Your task to perform on an android device: Go to notification settings Image 0: 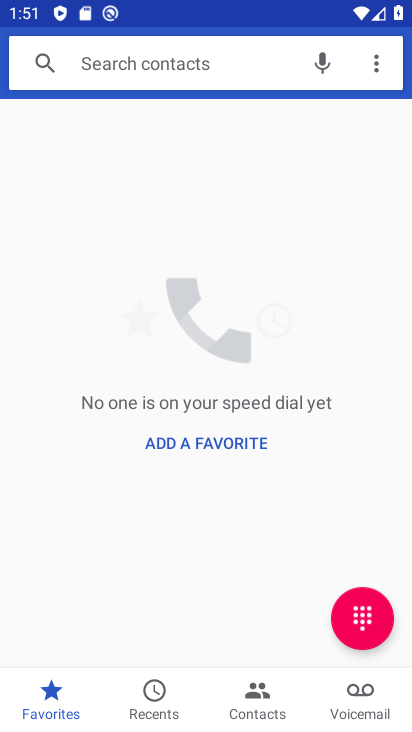
Step 0: press home button
Your task to perform on an android device: Go to notification settings Image 1: 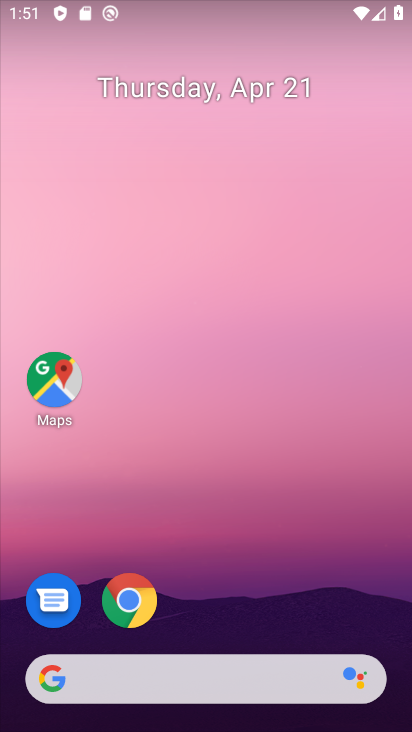
Step 1: drag from (285, 581) to (288, 100)
Your task to perform on an android device: Go to notification settings Image 2: 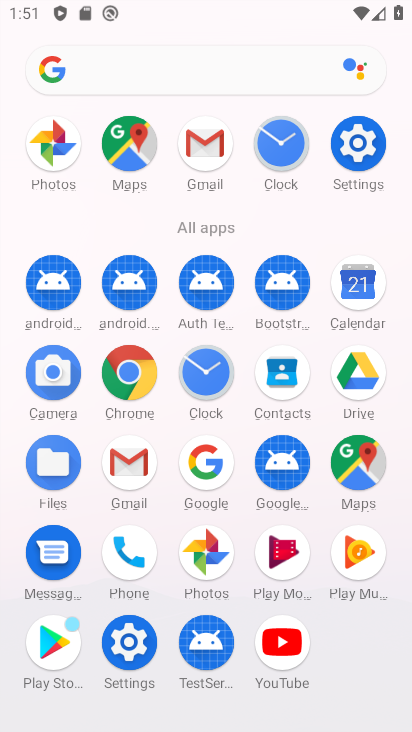
Step 2: click (369, 132)
Your task to perform on an android device: Go to notification settings Image 3: 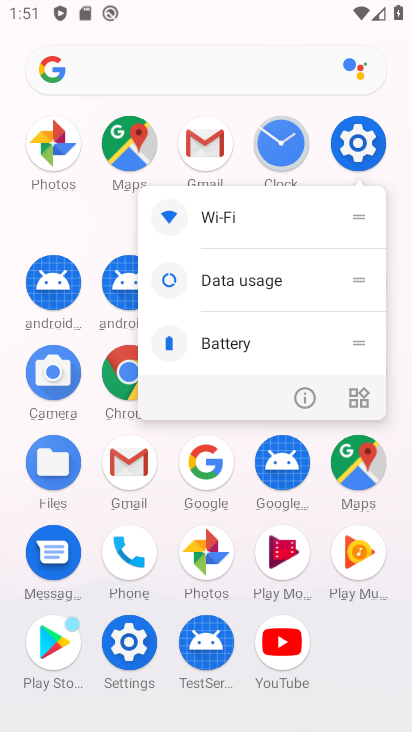
Step 3: click (132, 633)
Your task to perform on an android device: Go to notification settings Image 4: 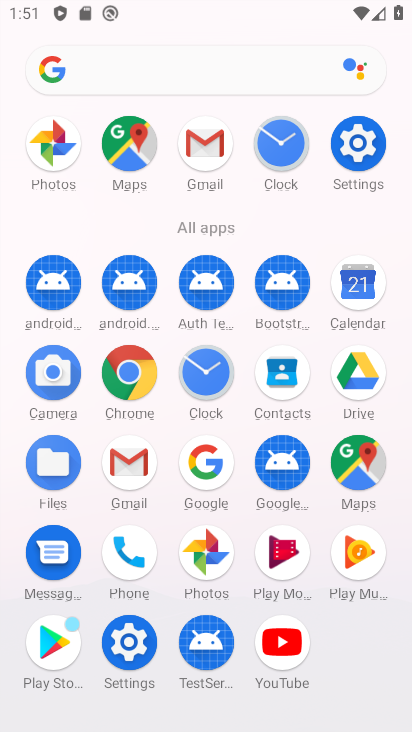
Step 4: click (132, 633)
Your task to perform on an android device: Go to notification settings Image 5: 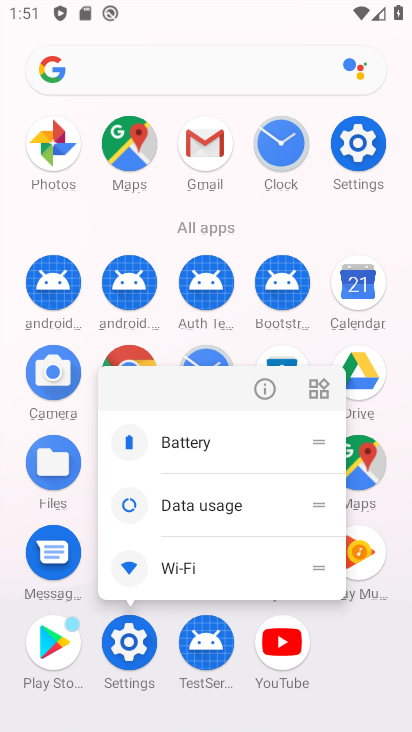
Step 5: click (130, 658)
Your task to perform on an android device: Go to notification settings Image 6: 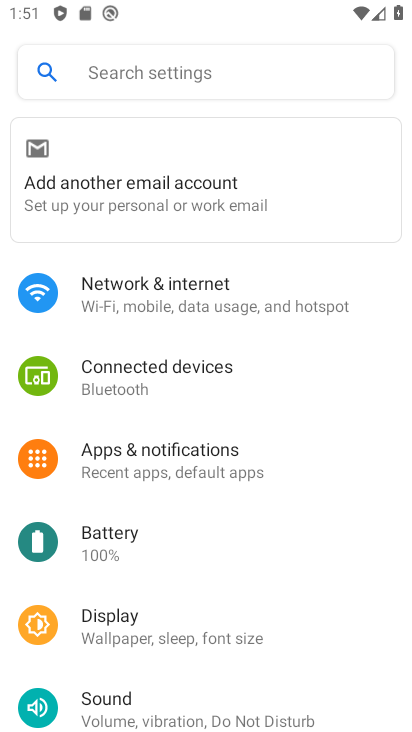
Step 6: drag from (190, 584) to (256, 251)
Your task to perform on an android device: Go to notification settings Image 7: 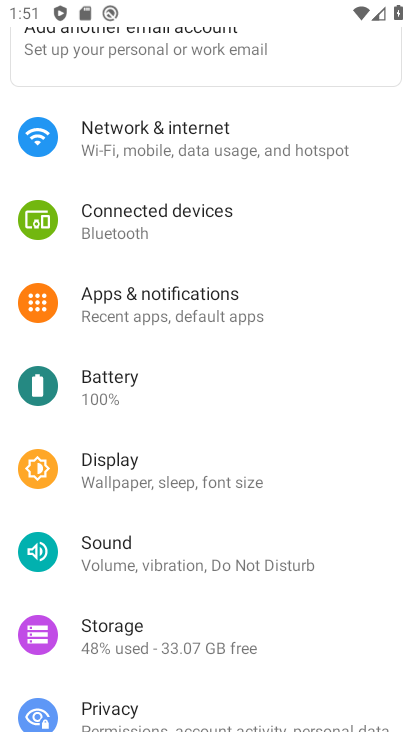
Step 7: click (224, 309)
Your task to perform on an android device: Go to notification settings Image 8: 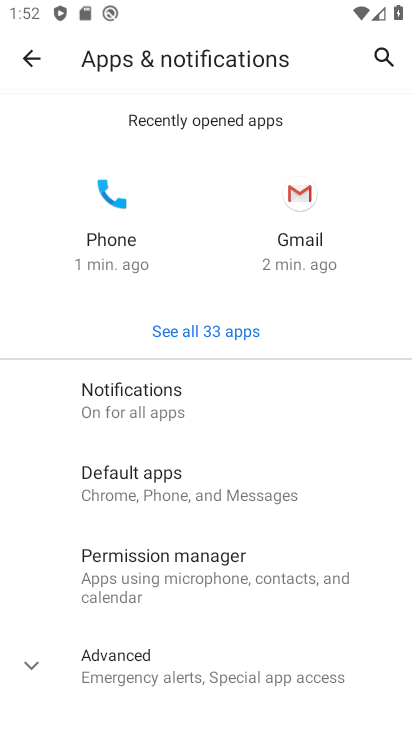
Step 8: click (199, 400)
Your task to perform on an android device: Go to notification settings Image 9: 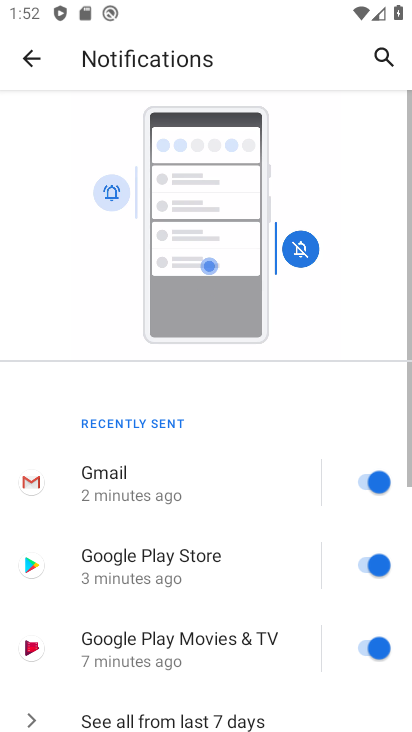
Step 9: task complete